Your task to perform on an android device: Open network settings Image 0: 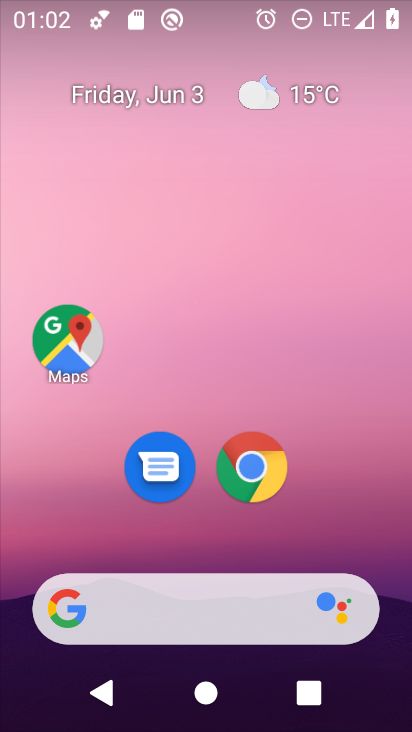
Step 0: drag from (401, 615) to (339, 20)
Your task to perform on an android device: Open network settings Image 1: 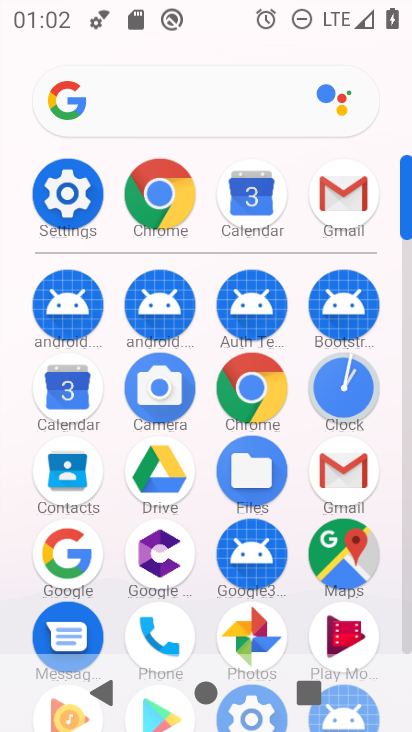
Step 1: click (406, 629)
Your task to perform on an android device: Open network settings Image 2: 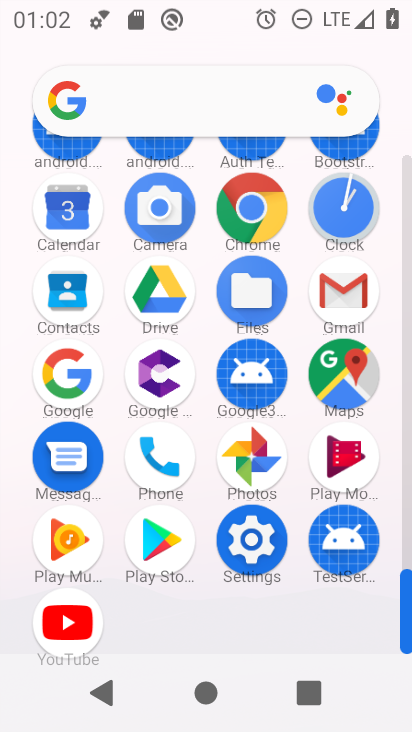
Step 2: click (253, 539)
Your task to perform on an android device: Open network settings Image 3: 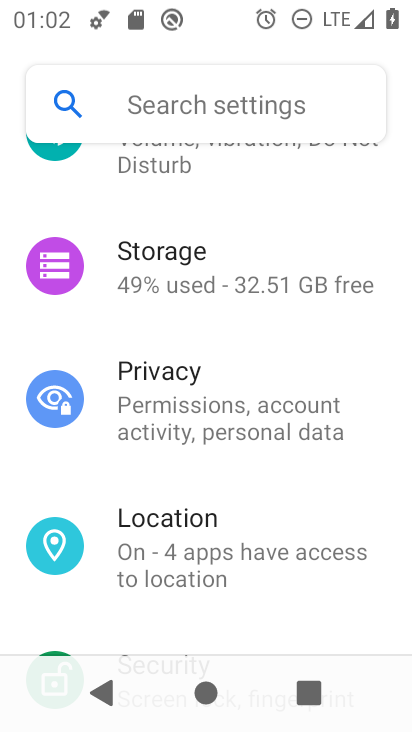
Step 3: drag from (340, 187) to (345, 511)
Your task to perform on an android device: Open network settings Image 4: 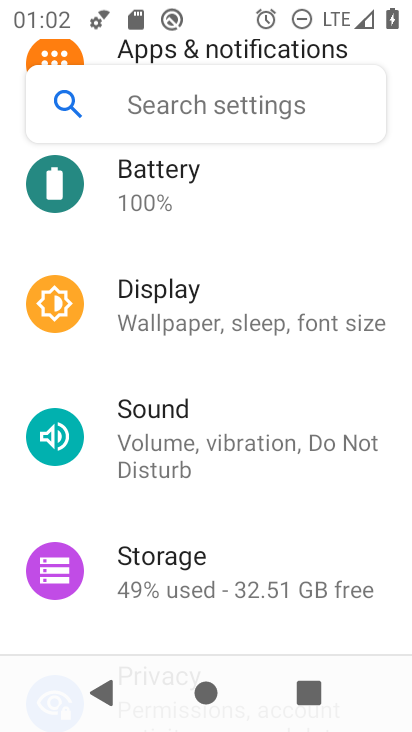
Step 4: drag from (372, 188) to (377, 487)
Your task to perform on an android device: Open network settings Image 5: 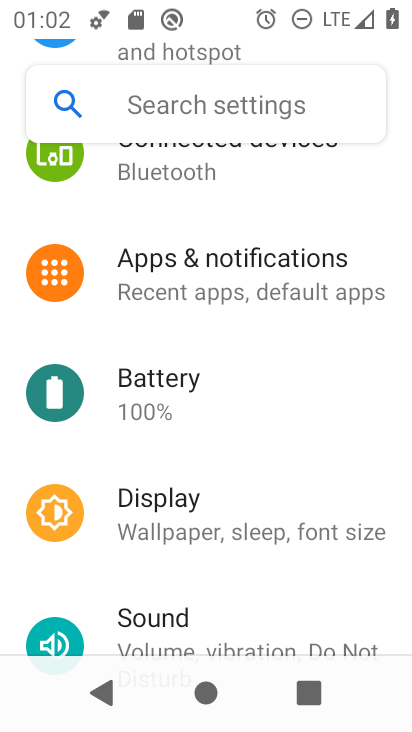
Step 5: drag from (378, 213) to (367, 519)
Your task to perform on an android device: Open network settings Image 6: 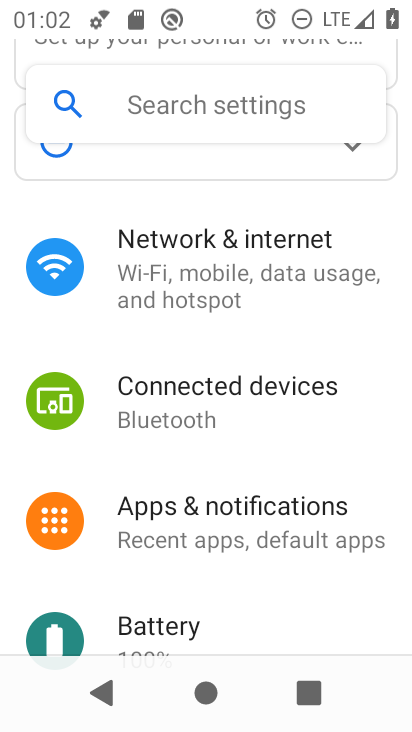
Step 6: click (188, 273)
Your task to perform on an android device: Open network settings Image 7: 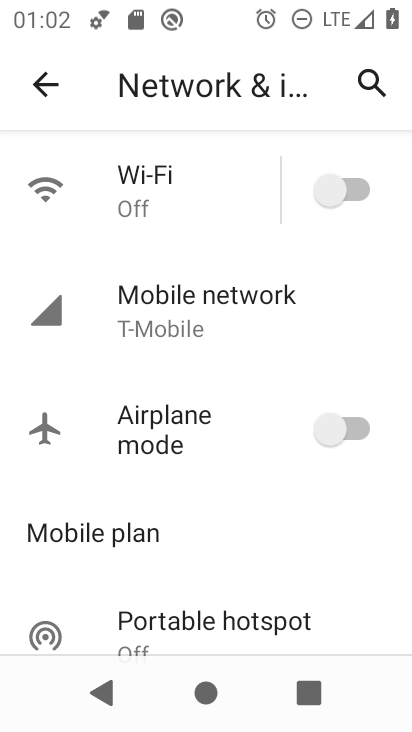
Step 7: drag from (249, 561) to (248, 451)
Your task to perform on an android device: Open network settings Image 8: 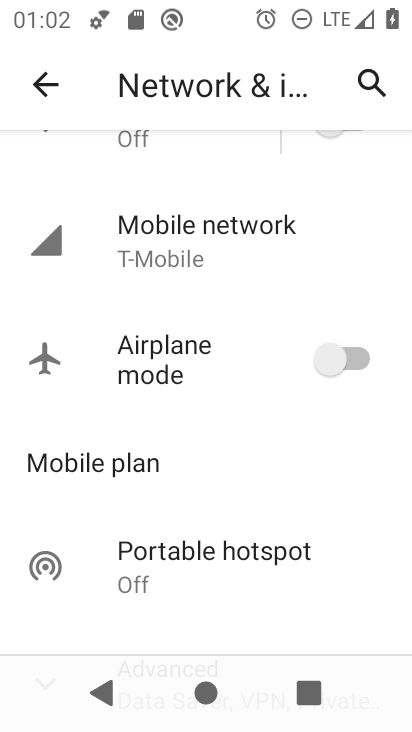
Step 8: click (190, 225)
Your task to perform on an android device: Open network settings Image 9: 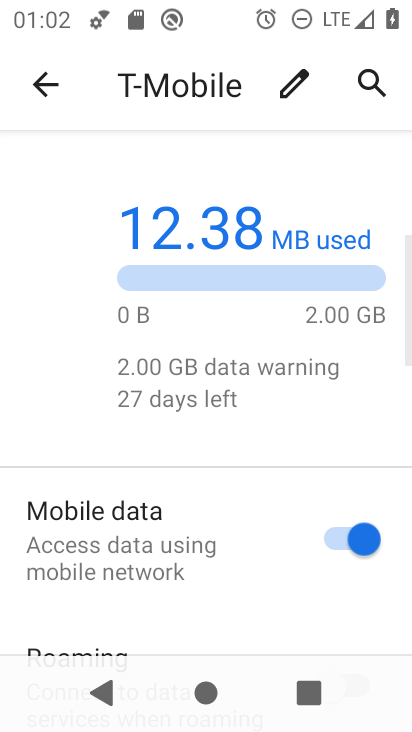
Step 9: task complete